Your task to perform on an android device: Go to sound settings Image 0: 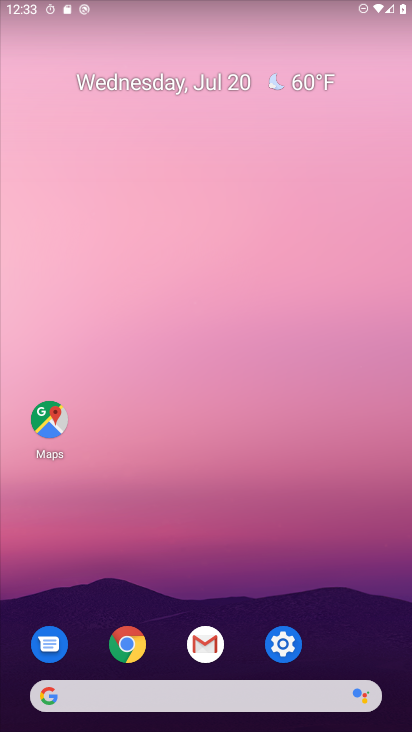
Step 0: click (293, 643)
Your task to perform on an android device: Go to sound settings Image 1: 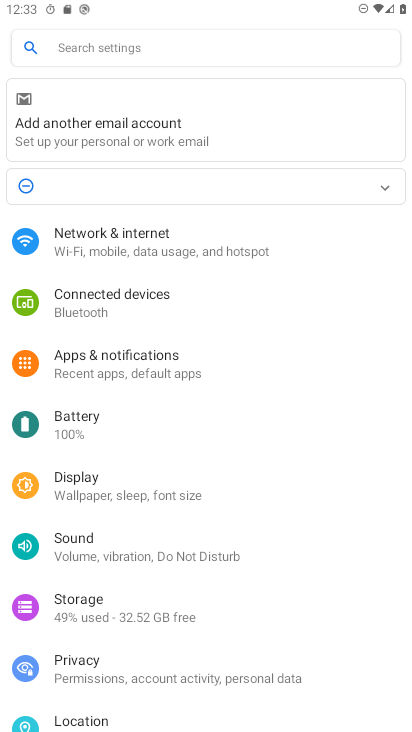
Step 1: click (102, 540)
Your task to perform on an android device: Go to sound settings Image 2: 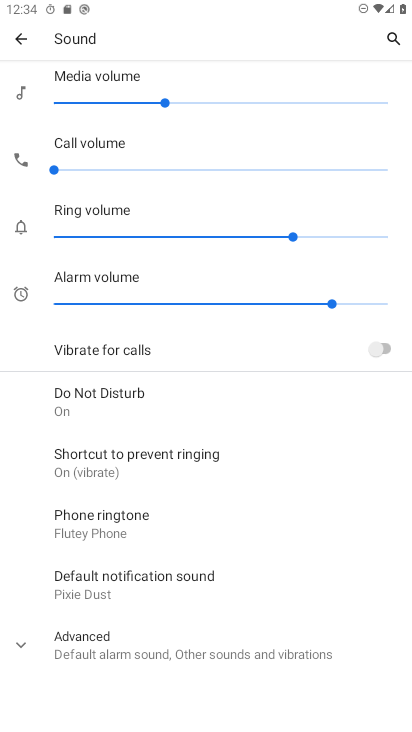
Step 2: task complete